Your task to perform on an android device: change the clock display to analog Image 0: 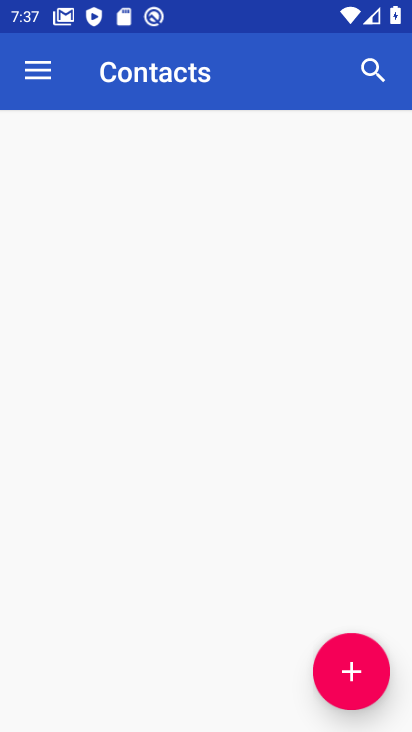
Step 0: press home button
Your task to perform on an android device: change the clock display to analog Image 1: 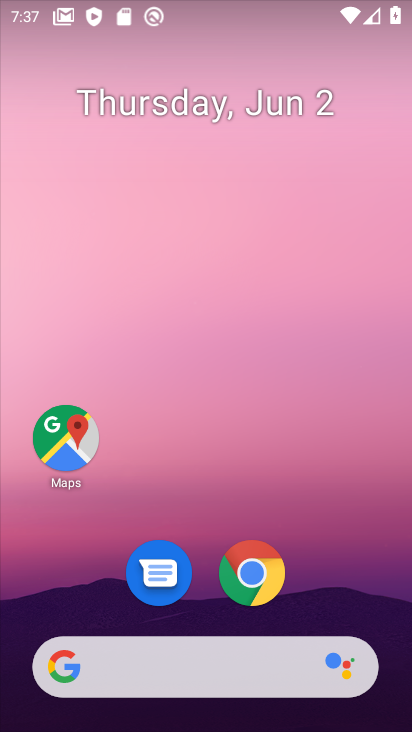
Step 1: drag from (374, 543) to (372, 66)
Your task to perform on an android device: change the clock display to analog Image 2: 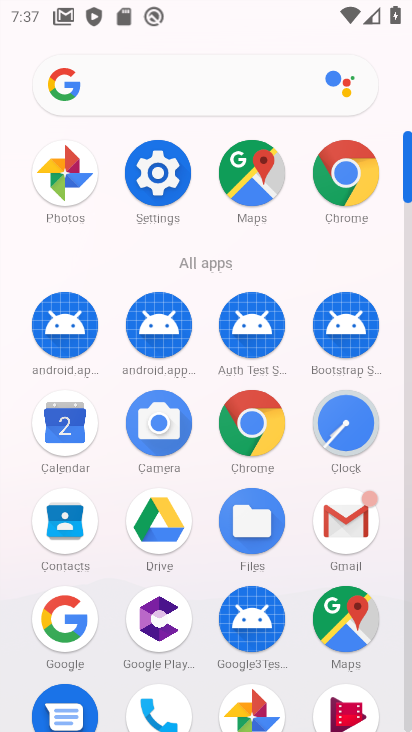
Step 2: click (365, 424)
Your task to perform on an android device: change the clock display to analog Image 3: 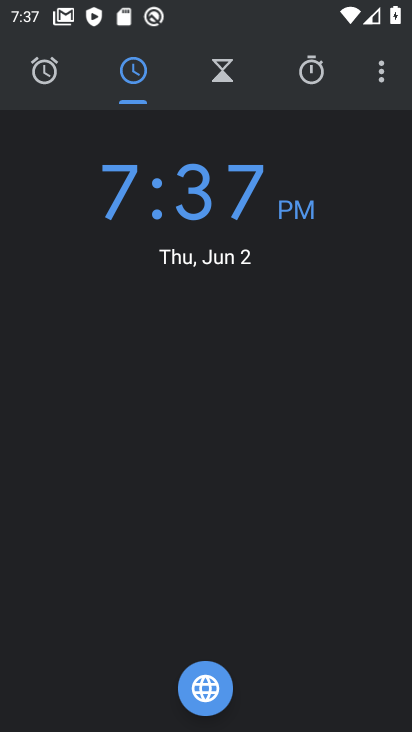
Step 3: click (388, 87)
Your task to perform on an android device: change the clock display to analog Image 4: 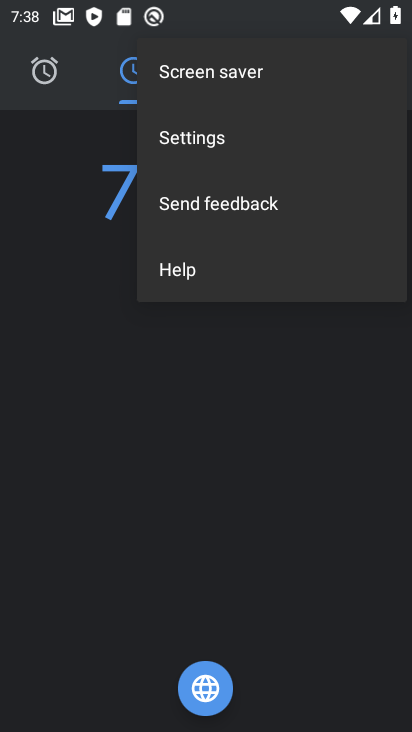
Step 4: click (212, 142)
Your task to perform on an android device: change the clock display to analog Image 5: 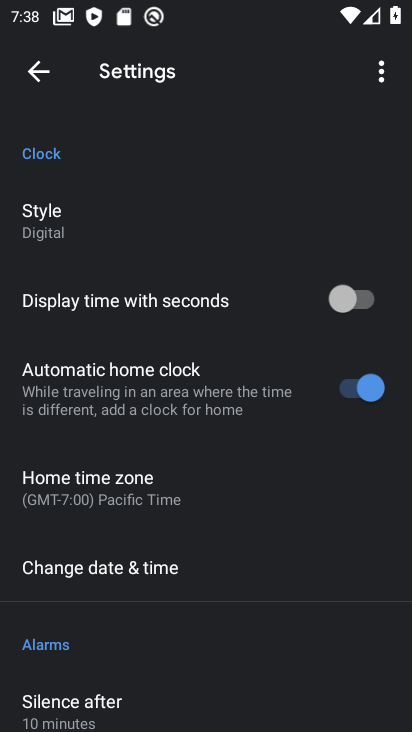
Step 5: click (45, 240)
Your task to perform on an android device: change the clock display to analog Image 6: 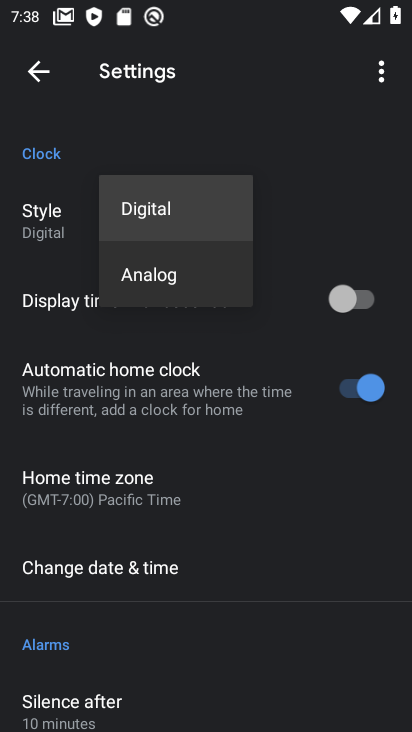
Step 6: click (132, 286)
Your task to perform on an android device: change the clock display to analog Image 7: 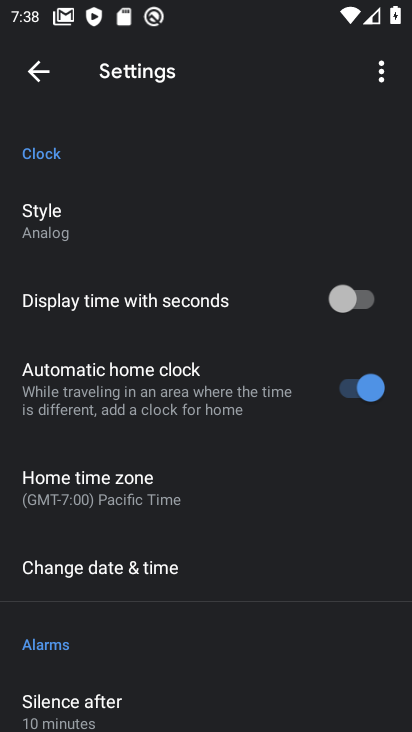
Step 7: task complete